Your task to perform on an android device: toggle notification dots Image 0: 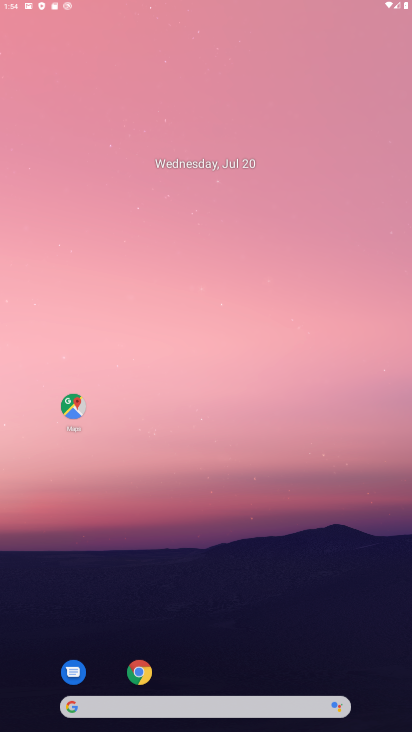
Step 0: drag from (257, 608) to (245, 139)
Your task to perform on an android device: toggle notification dots Image 1: 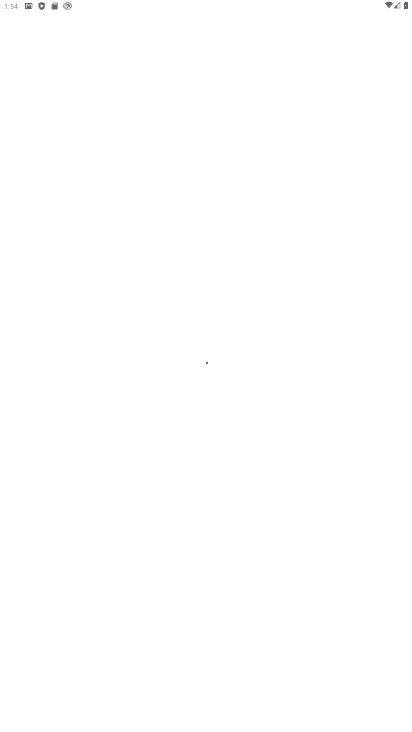
Step 1: press home button
Your task to perform on an android device: toggle notification dots Image 2: 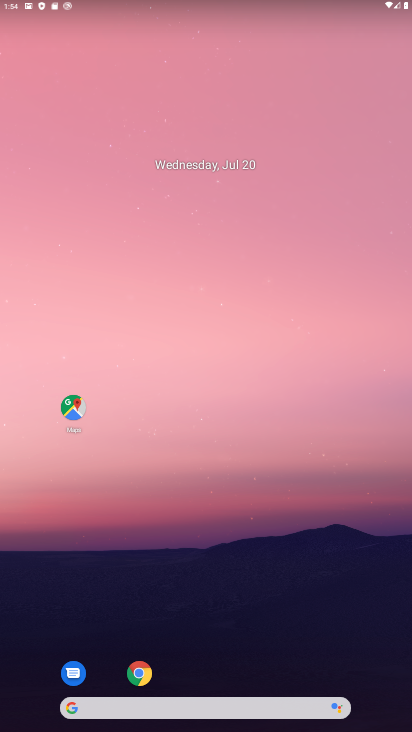
Step 2: drag from (204, 676) to (241, 168)
Your task to perform on an android device: toggle notification dots Image 3: 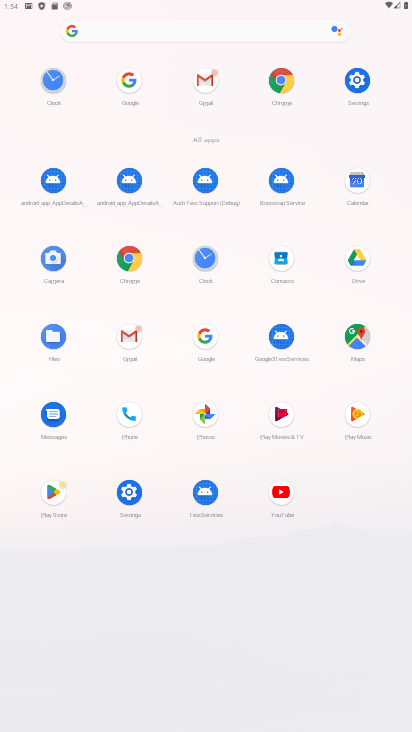
Step 3: click (355, 83)
Your task to perform on an android device: toggle notification dots Image 4: 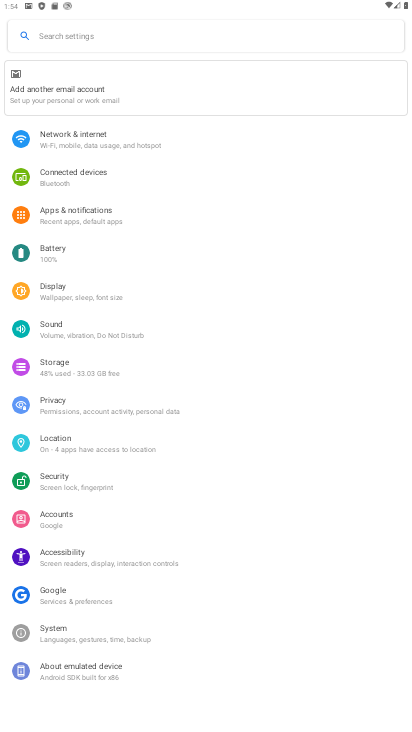
Step 4: click (91, 210)
Your task to perform on an android device: toggle notification dots Image 5: 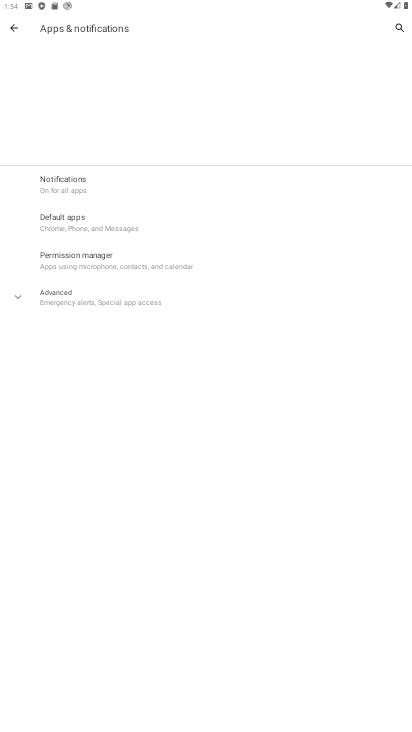
Step 5: click (98, 181)
Your task to perform on an android device: toggle notification dots Image 6: 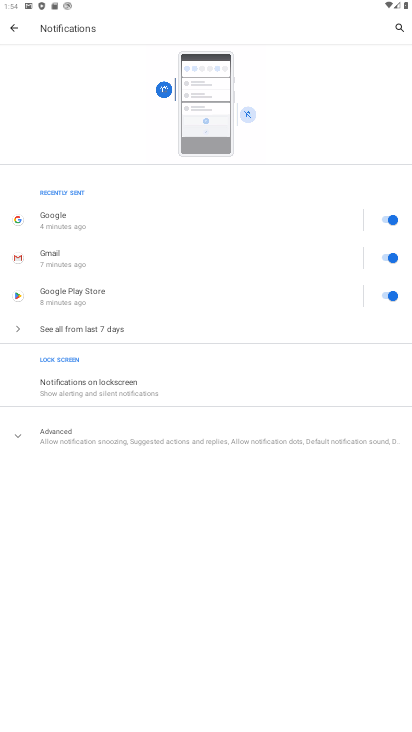
Step 6: click (68, 439)
Your task to perform on an android device: toggle notification dots Image 7: 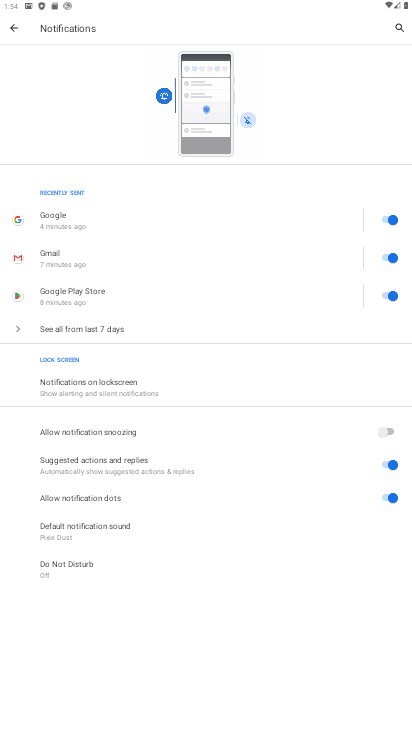
Step 7: click (384, 495)
Your task to perform on an android device: toggle notification dots Image 8: 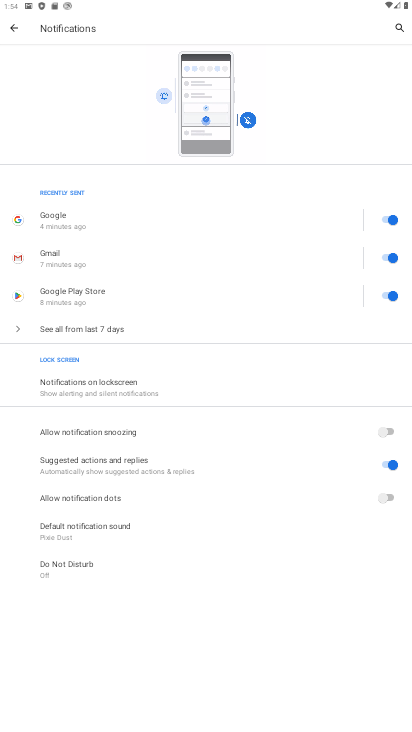
Step 8: task complete